Your task to perform on an android device: remove spam from my inbox in the gmail app Image 0: 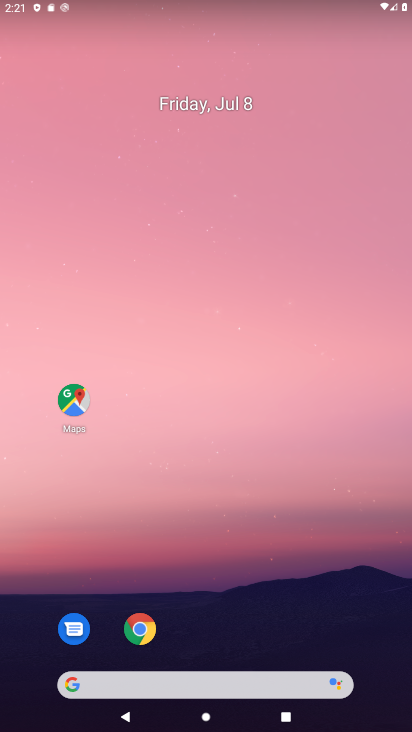
Step 0: click (348, 28)
Your task to perform on an android device: remove spam from my inbox in the gmail app Image 1: 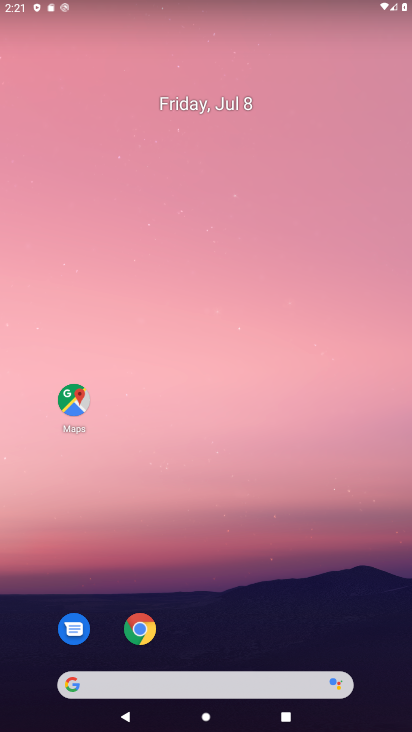
Step 1: drag from (30, 710) to (254, 149)
Your task to perform on an android device: remove spam from my inbox in the gmail app Image 2: 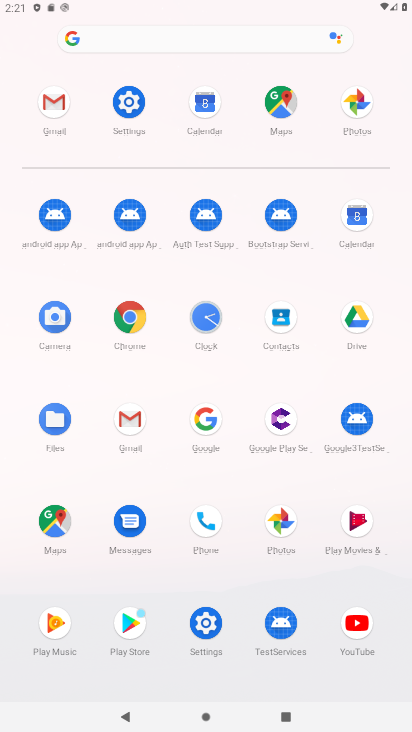
Step 2: click (128, 414)
Your task to perform on an android device: remove spam from my inbox in the gmail app Image 3: 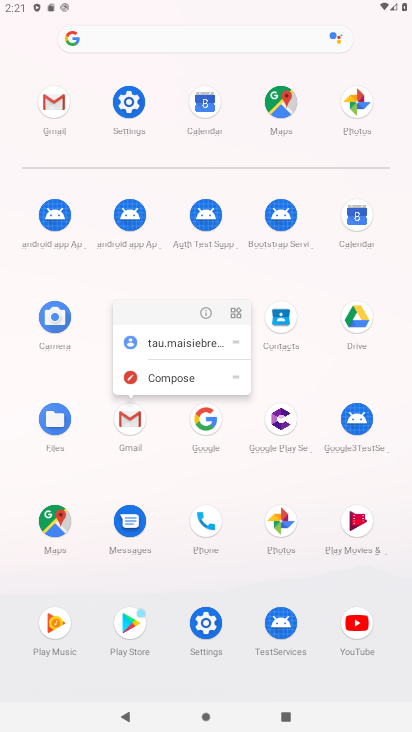
Step 3: click (134, 428)
Your task to perform on an android device: remove spam from my inbox in the gmail app Image 4: 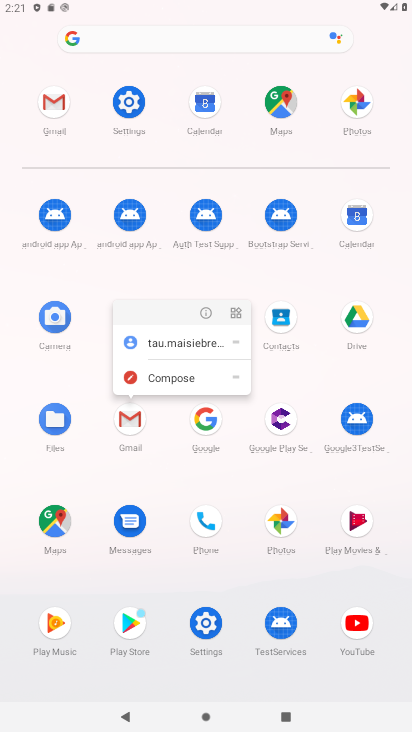
Step 4: task complete